Your task to perform on an android device: Open the phone app and click the voicemail tab. Image 0: 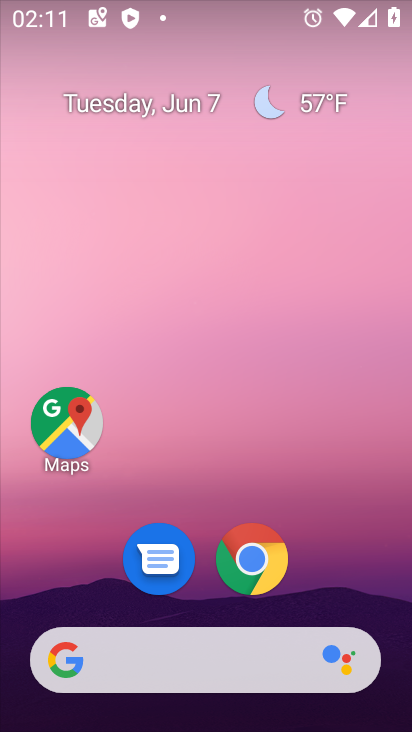
Step 0: drag from (332, 511) to (225, 25)
Your task to perform on an android device: Open the phone app and click the voicemail tab. Image 1: 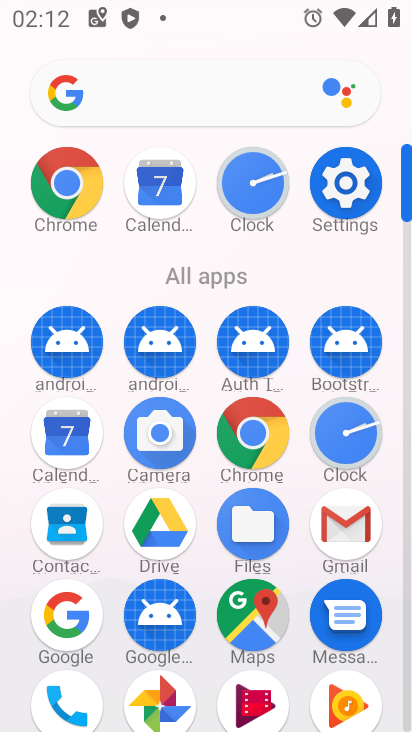
Step 1: drag from (310, 292) to (285, 113)
Your task to perform on an android device: Open the phone app and click the voicemail tab. Image 2: 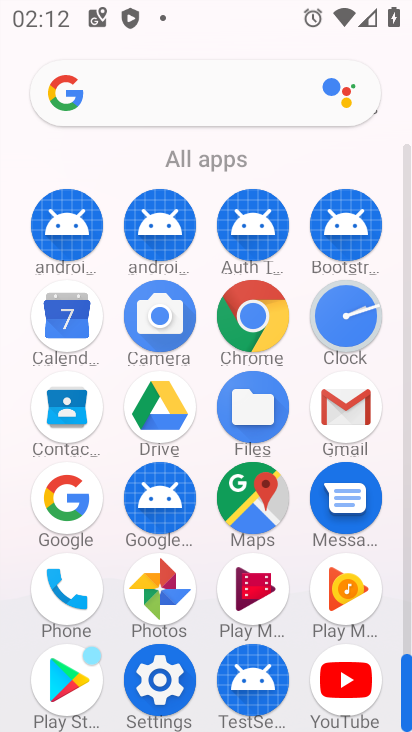
Step 2: click (61, 592)
Your task to perform on an android device: Open the phone app and click the voicemail tab. Image 3: 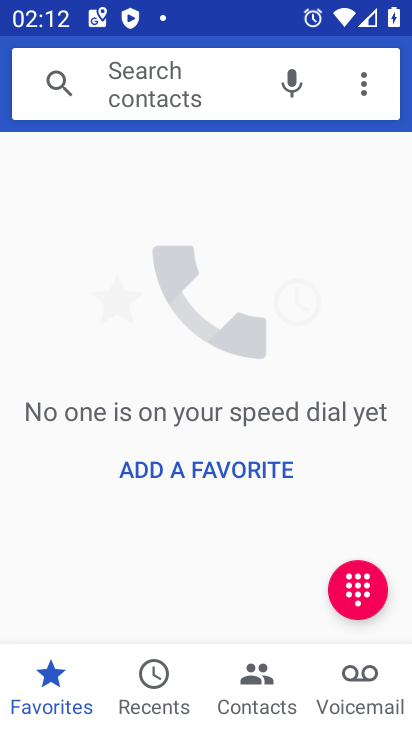
Step 3: click (368, 673)
Your task to perform on an android device: Open the phone app and click the voicemail tab. Image 4: 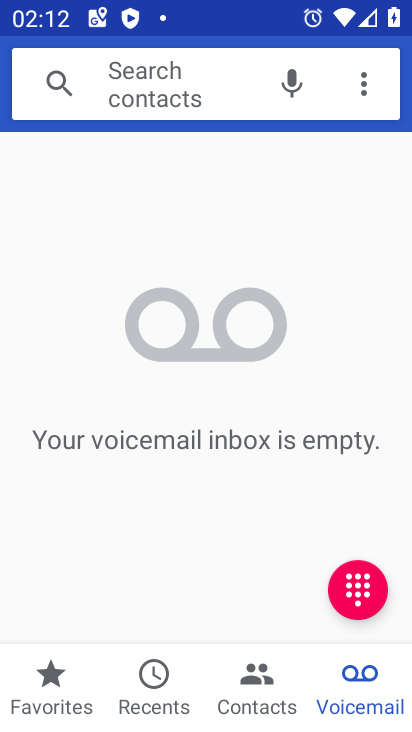
Step 4: task complete